Your task to perform on an android device: What's on my calendar today? Image 0: 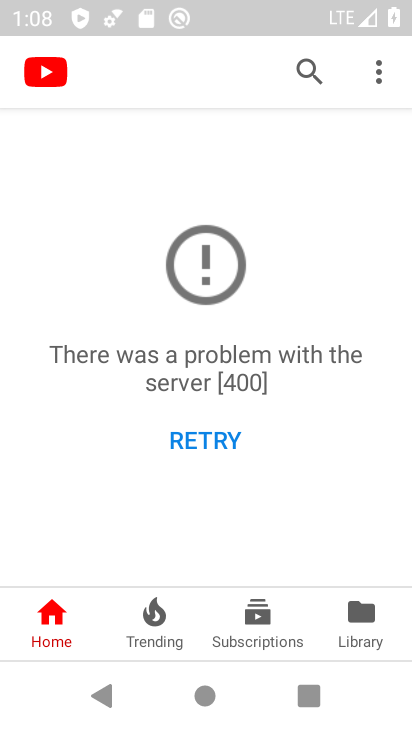
Step 0: press home button
Your task to perform on an android device: What's on my calendar today? Image 1: 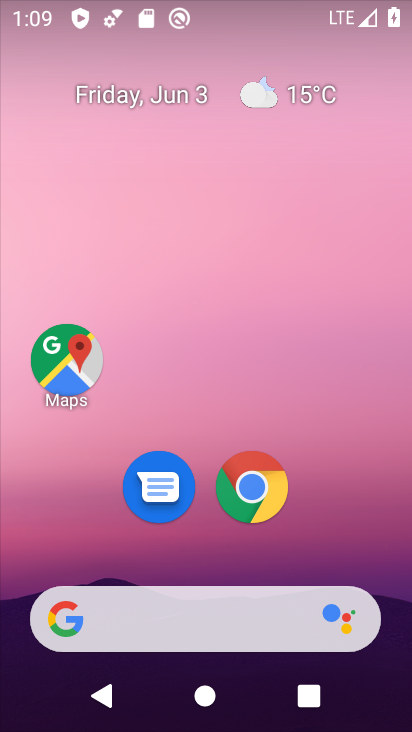
Step 1: drag from (158, 721) to (209, 30)
Your task to perform on an android device: What's on my calendar today? Image 2: 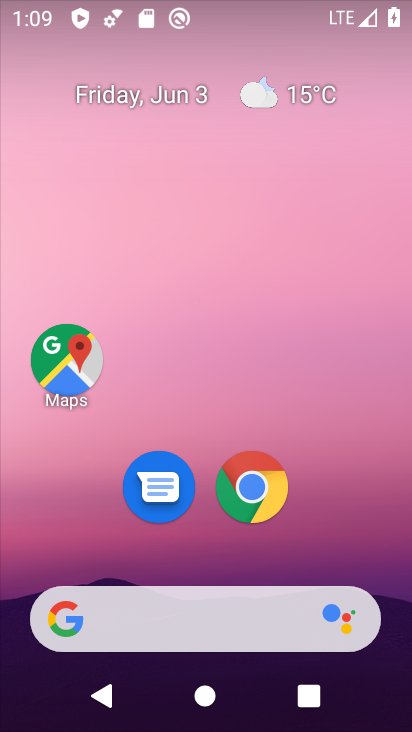
Step 2: drag from (160, 730) to (183, 33)
Your task to perform on an android device: What's on my calendar today? Image 3: 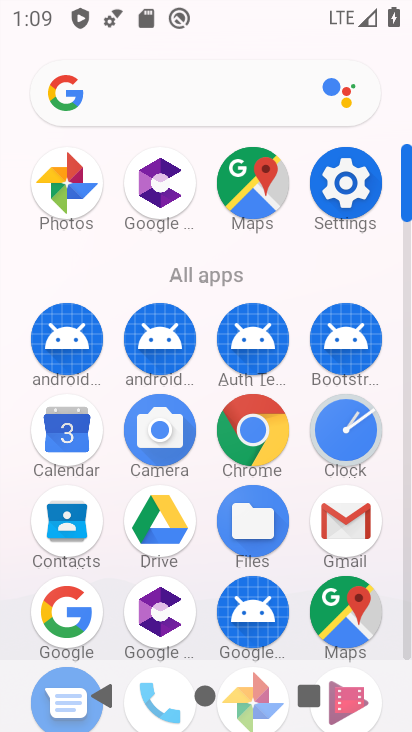
Step 3: click (73, 440)
Your task to perform on an android device: What's on my calendar today? Image 4: 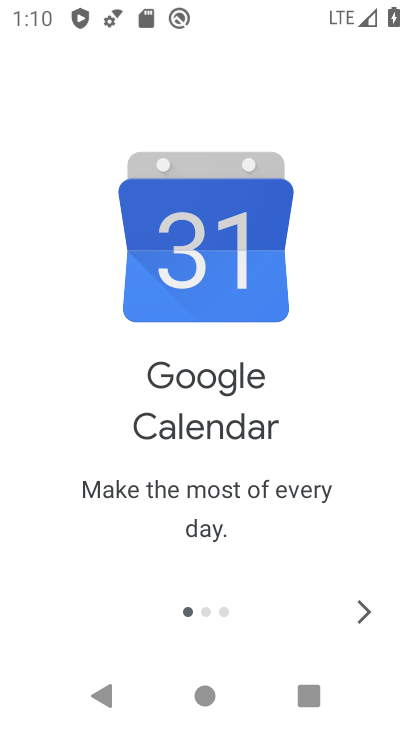
Step 4: click (367, 608)
Your task to perform on an android device: What's on my calendar today? Image 5: 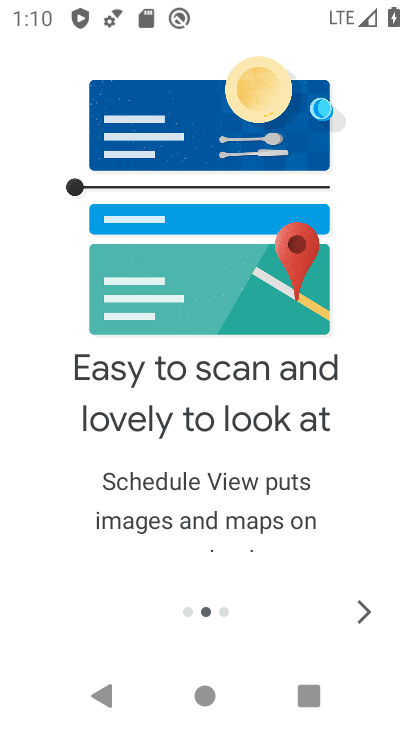
Step 5: click (359, 614)
Your task to perform on an android device: What's on my calendar today? Image 6: 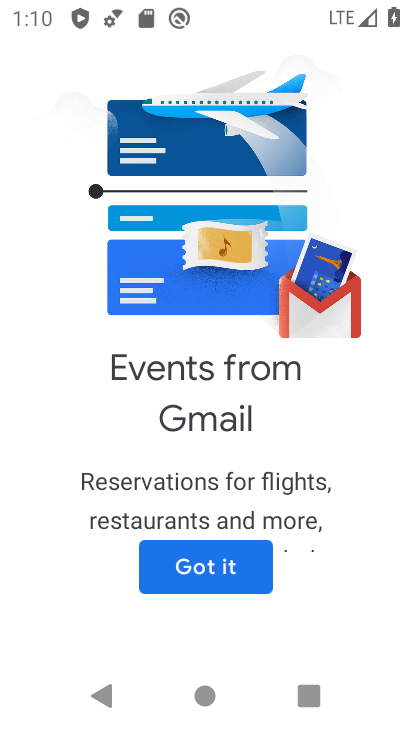
Step 6: click (223, 578)
Your task to perform on an android device: What's on my calendar today? Image 7: 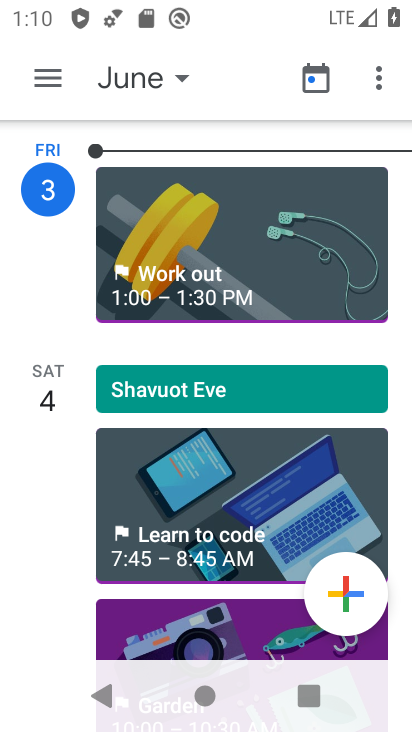
Step 7: click (215, 239)
Your task to perform on an android device: What's on my calendar today? Image 8: 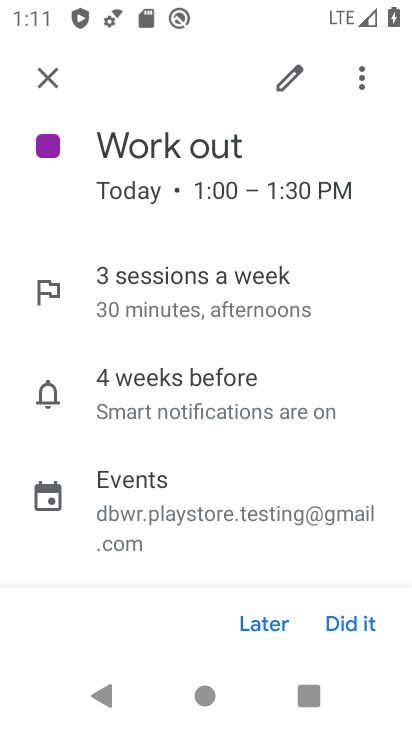
Step 8: task complete